Your task to perform on an android device: turn on airplane mode Image 0: 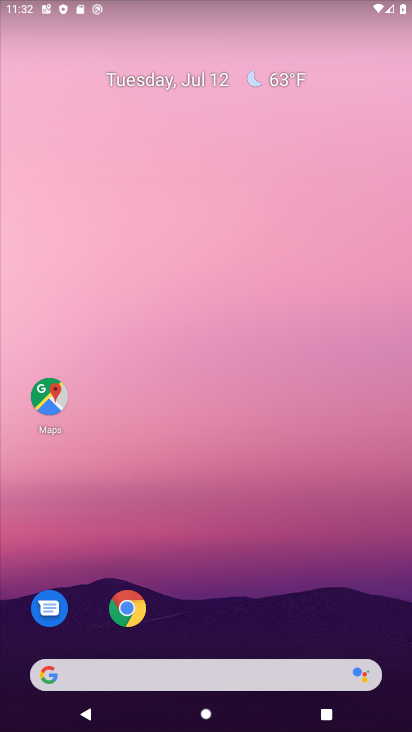
Step 0: drag from (209, 629) to (178, 140)
Your task to perform on an android device: turn on airplane mode Image 1: 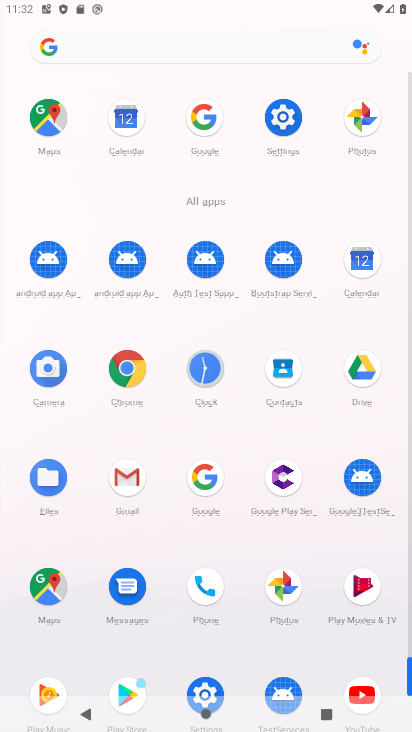
Step 1: click (282, 120)
Your task to perform on an android device: turn on airplane mode Image 2: 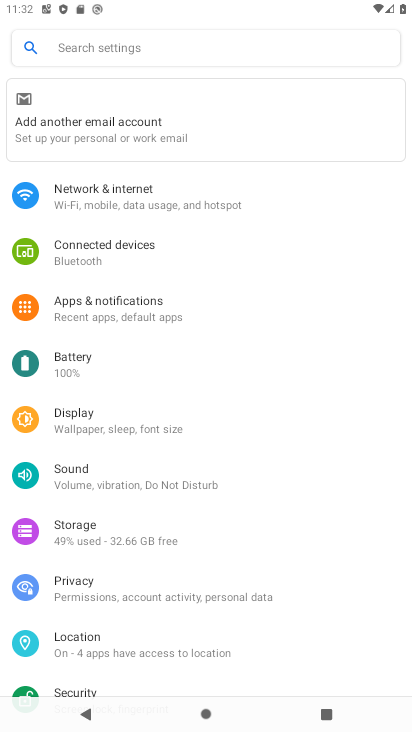
Step 2: click (160, 186)
Your task to perform on an android device: turn on airplane mode Image 3: 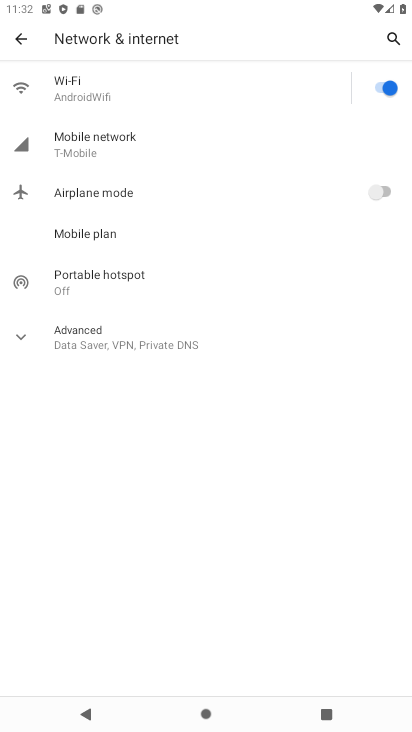
Step 3: click (382, 190)
Your task to perform on an android device: turn on airplane mode Image 4: 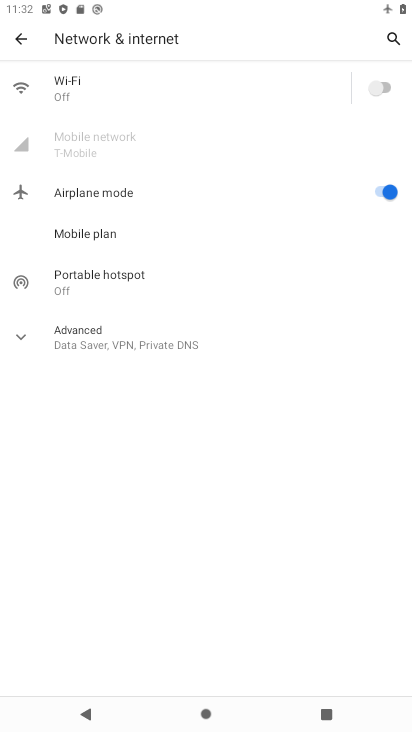
Step 4: task complete